Your task to perform on an android device: Open Amazon Image 0: 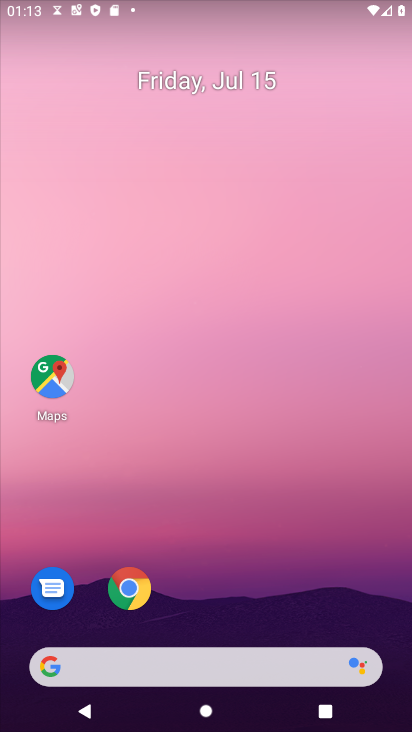
Step 0: click (137, 584)
Your task to perform on an android device: Open Amazon Image 1: 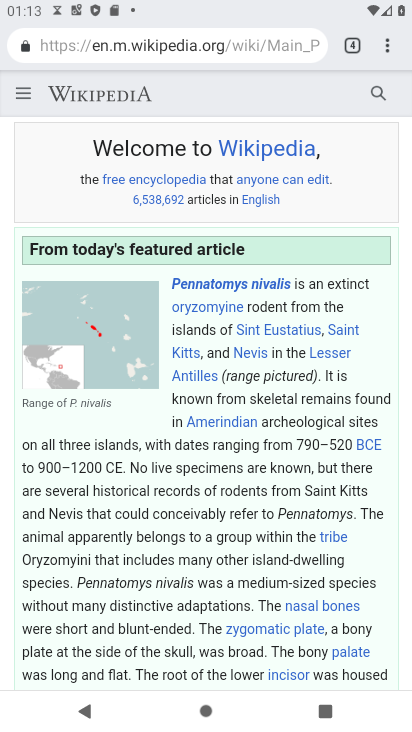
Step 1: click (355, 38)
Your task to perform on an android device: Open Amazon Image 2: 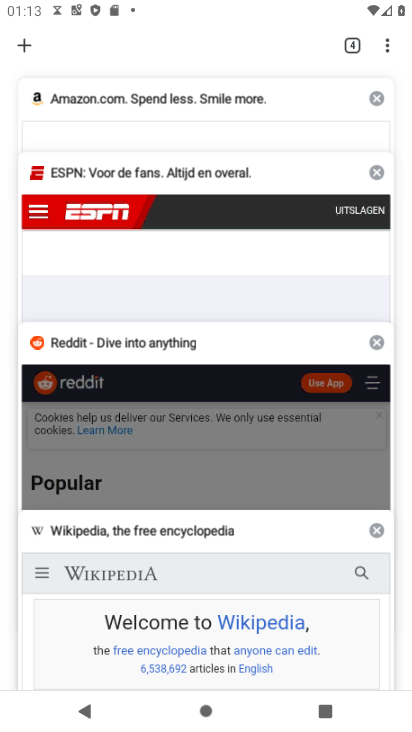
Step 2: click (137, 109)
Your task to perform on an android device: Open Amazon Image 3: 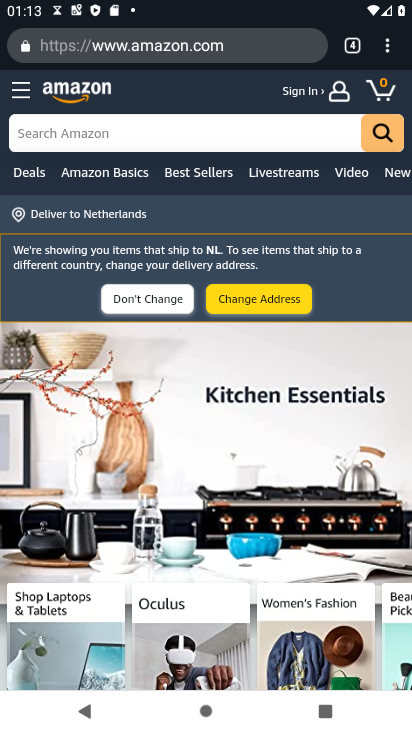
Step 3: task complete